Your task to perform on an android device: Go to settings Image 0: 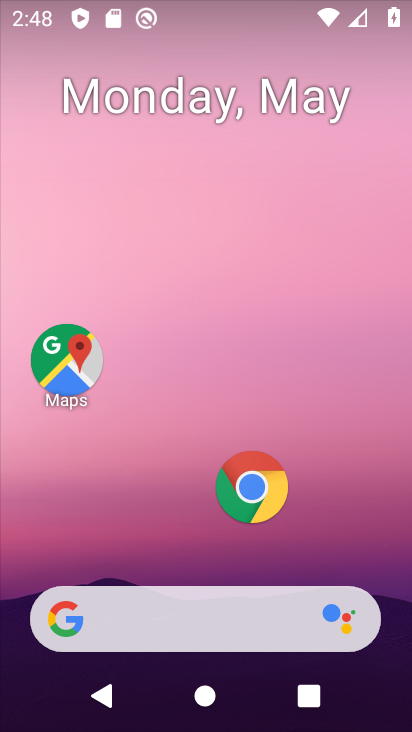
Step 0: drag from (318, 550) to (308, 45)
Your task to perform on an android device: Go to settings Image 1: 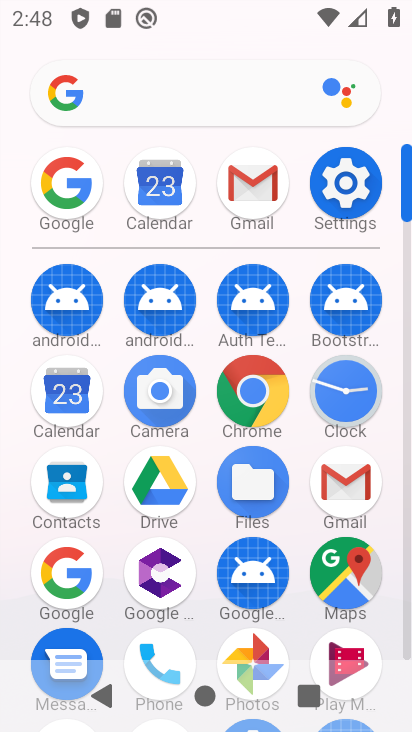
Step 1: click (354, 173)
Your task to perform on an android device: Go to settings Image 2: 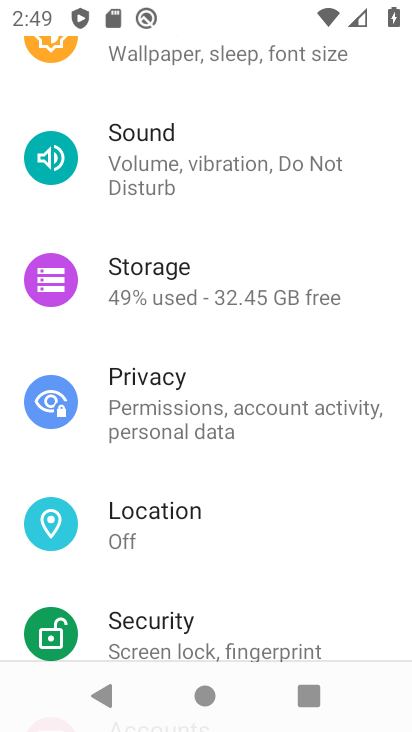
Step 2: task complete